Your task to perform on an android device: star an email in the gmail app Image 0: 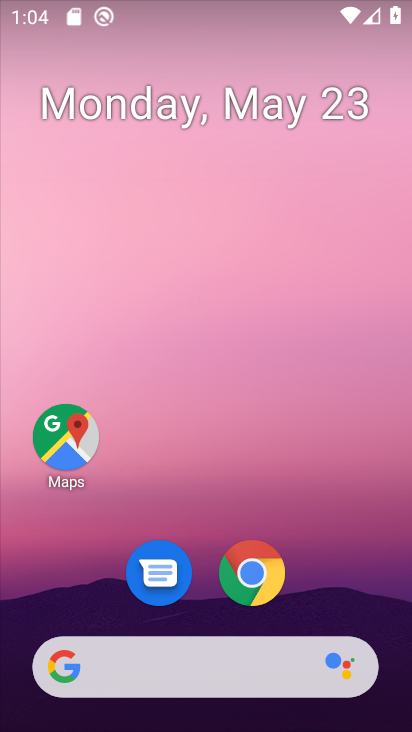
Step 0: click (265, 566)
Your task to perform on an android device: star an email in the gmail app Image 1: 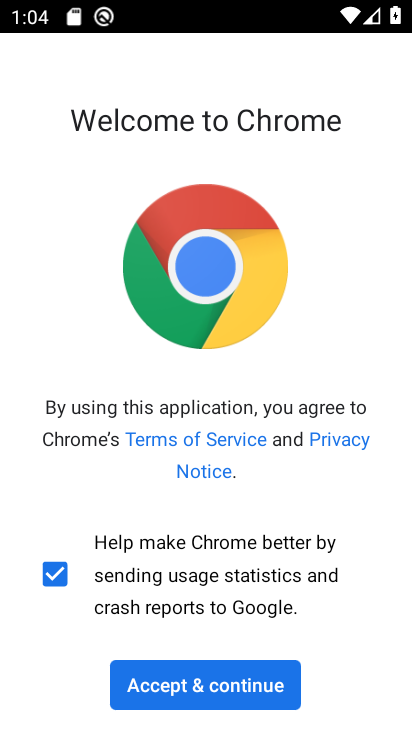
Step 1: click (252, 691)
Your task to perform on an android device: star an email in the gmail app Image 2: 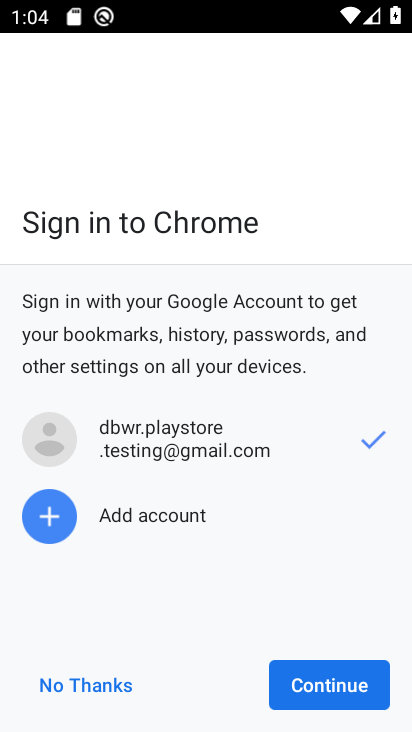
Step 2: click (314, 694)
Your task to perform on an android device: star an email in the gmail app Image 3: 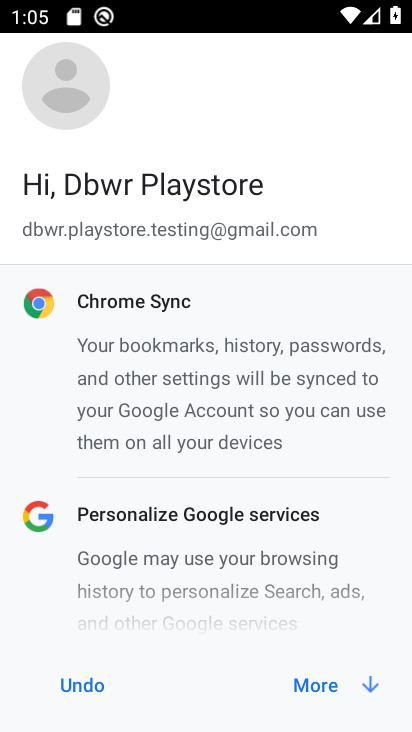
Step 3: click (335, 685)
Your task to perform on an android device: star an email in the gmail app Image 4: 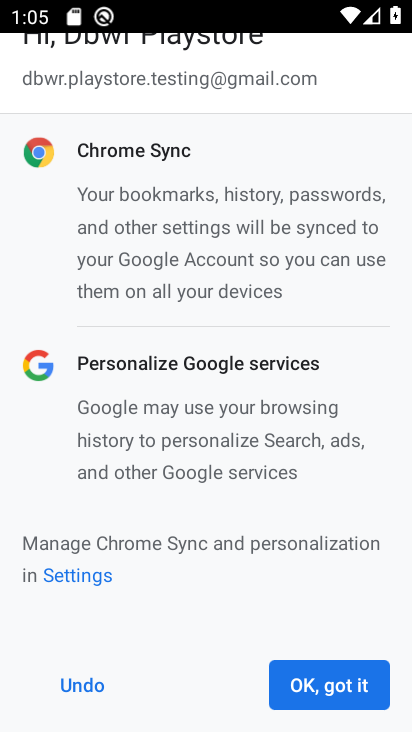
Step 4: click (335, 685)
Your task to perform on an android device: star an email in the gmail app Image 5: 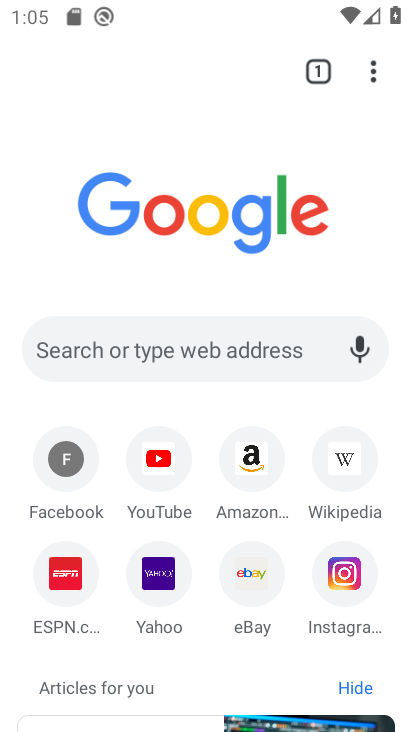
Step 5: press home button
Your task to perform on an android device: star an email in the gmail app Image 6: 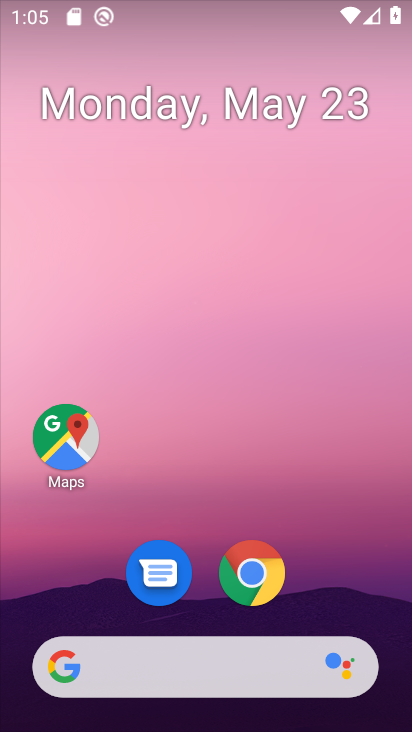
Step 6: press home button
Your task to perform on an android device: star an email in the gmail app Image 7: 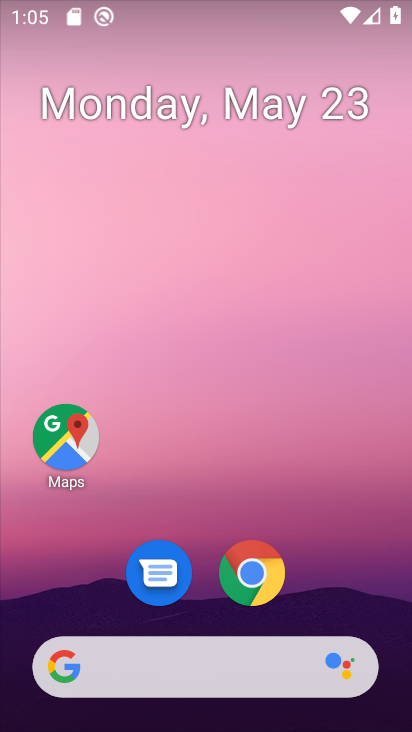
Step 7: drag from (328, 600) to (331, 84)
Your task to perform on an android device: star an email in the gmail app Image 8: 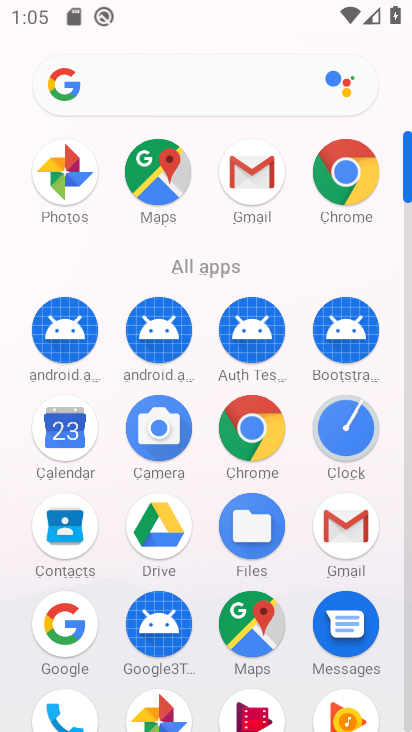
Step 8: click (251, 181)
Your task to perform on an android device: star an email in the gmail app Image 9: 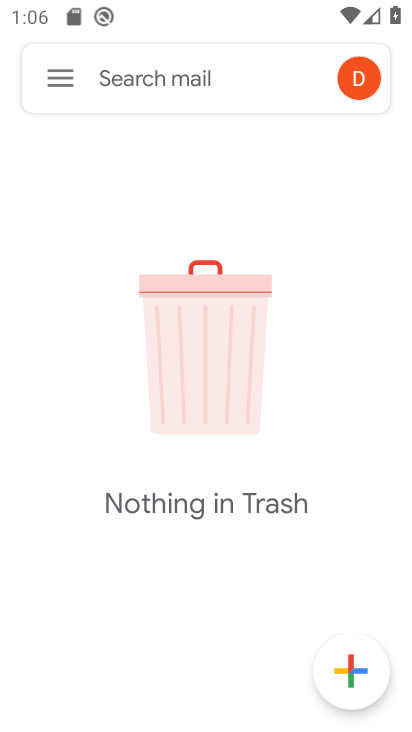
Step 9: click (62, 78)
Your task to perform on an android device: star an email in the gmail app Image 10: 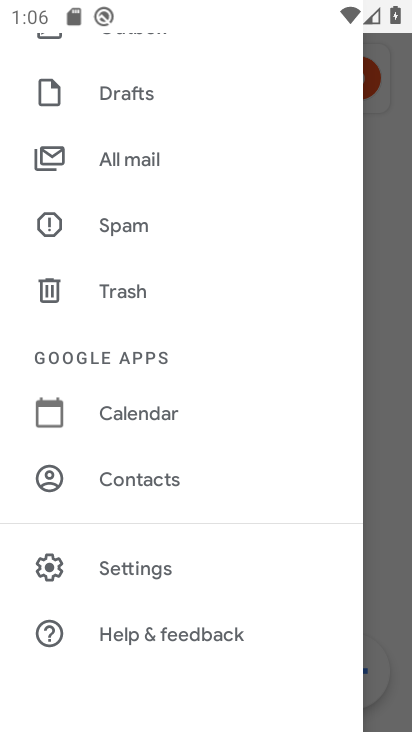
Step 10: click (150, 161)
Your task to perform on an android device: star an email in the gmail app Image 11: 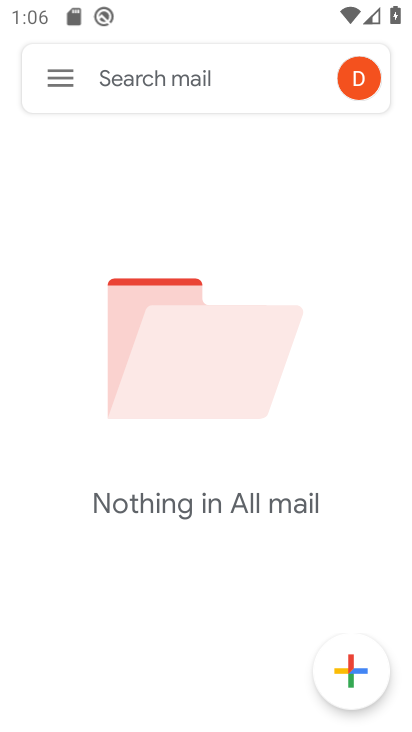
Step 11: task complete